Your task to perform on an android device: change alarm snooze length Image 0: 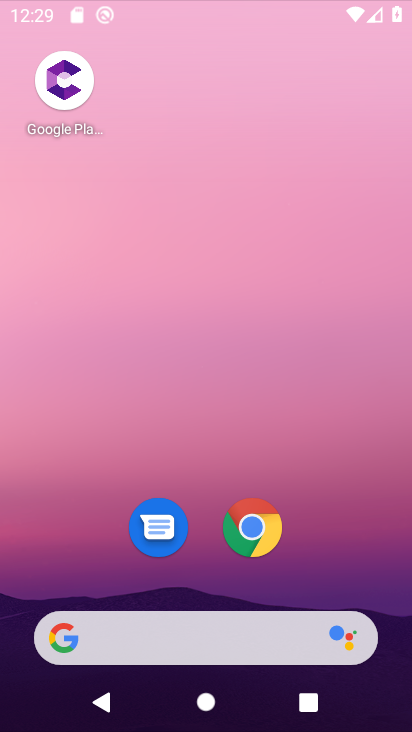
Step 0: click (250, 529)
Your task to perform on an android device: change alarm snooze length Image 1: 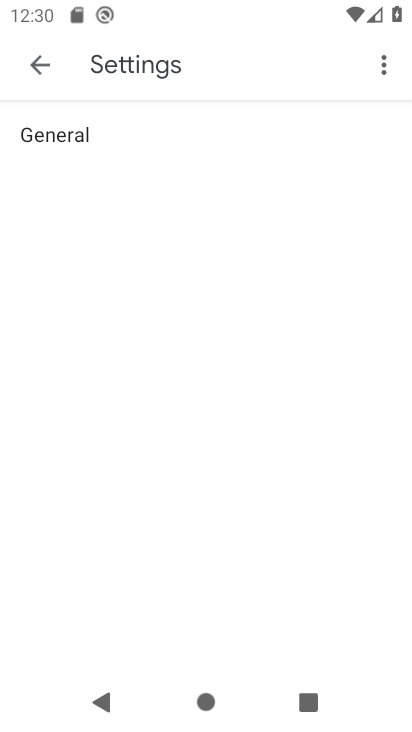
Step 1: press home button
Your task to perform on an android device: change alarm snooze length Image 2: 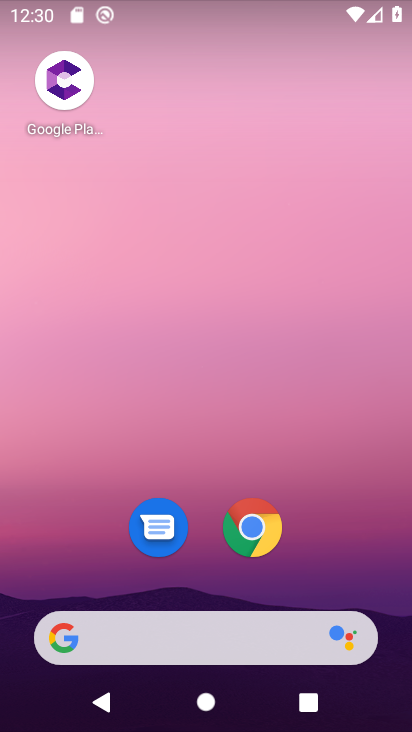
Step 2: drag from (299, 514) to (300, 121)
Your task to perform on an android device: change alarm snooze length Image 3: 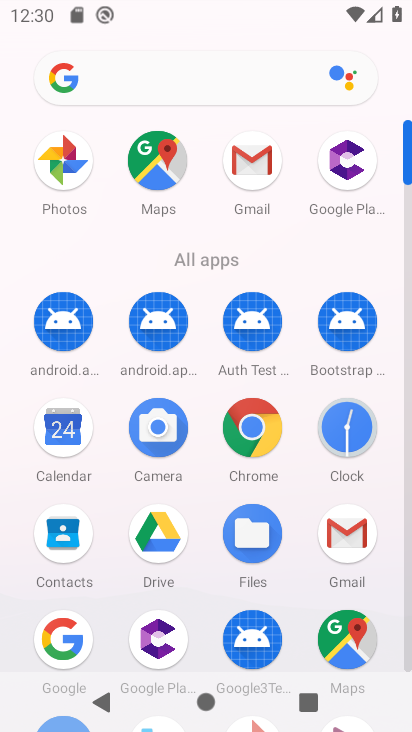
Step 3: click (330, 407)
Your task to perform on an android device: change alarm snooze length Image 4: 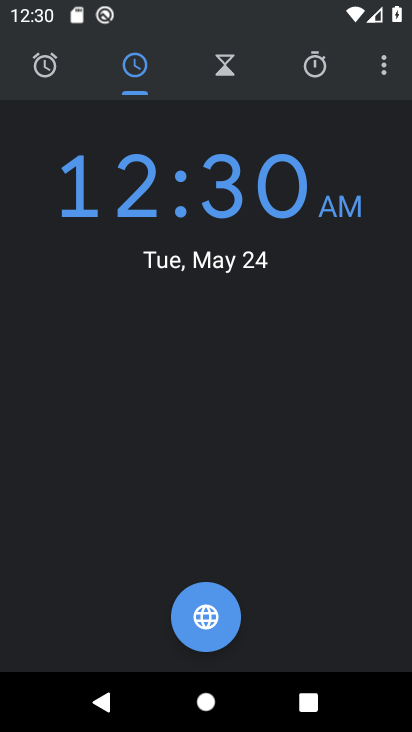
Step 4: click (387, 78)
Your task to perform on an android device: change alarm snooze length Image 5: 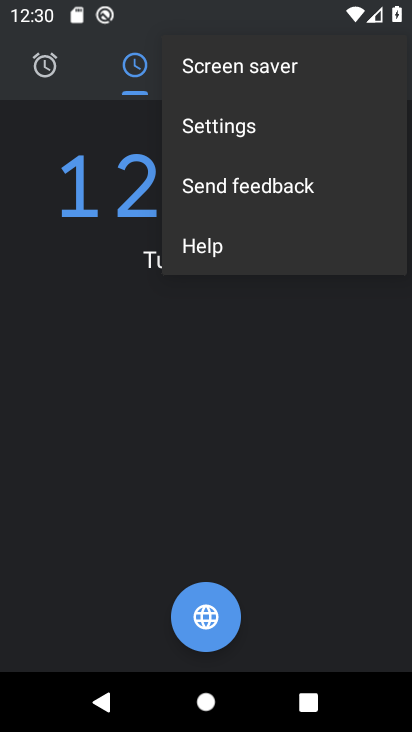
Step 5: click (215, 137)
Your task to perform on an android device: change alarm snooze length Image 6: 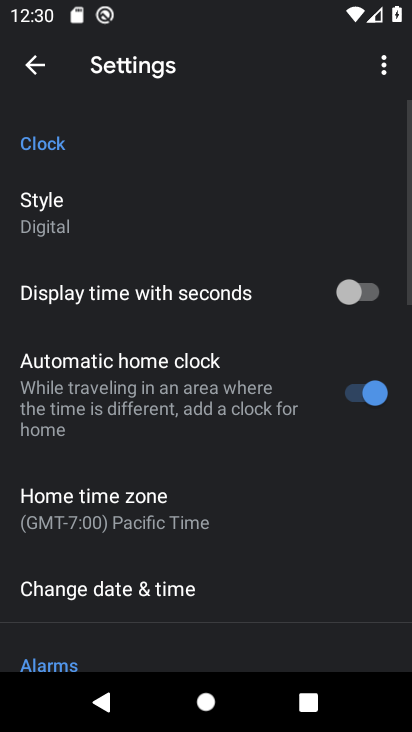
Step 6: drag from (243, 494) to (207, 222)
Your task to perform on an android device: change alarm snooze length Image 7: 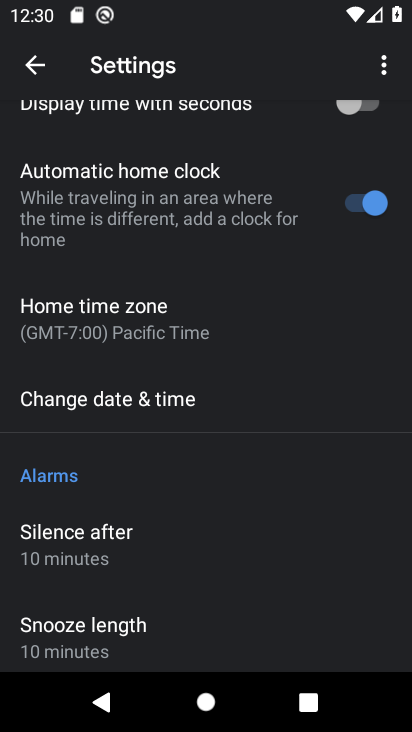
Step 7: click (84, 624)
Your task to perform on an android device: change alarm snooze length Image 8: 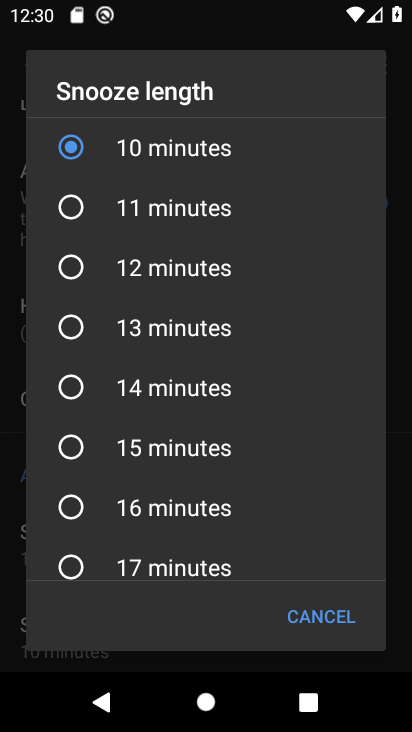
Step 8: click (72, 379)
Your task to perform on an android device: change alarm snooze length Image 9: 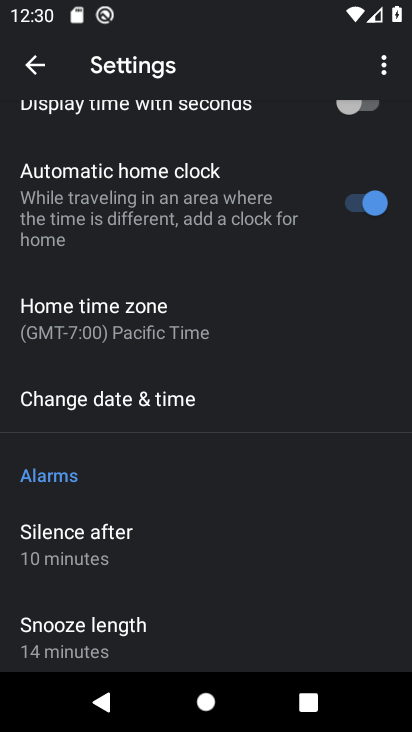
Step 9: task complete